Your task to perform on an android device: Go to Yahoo.com Image 0: 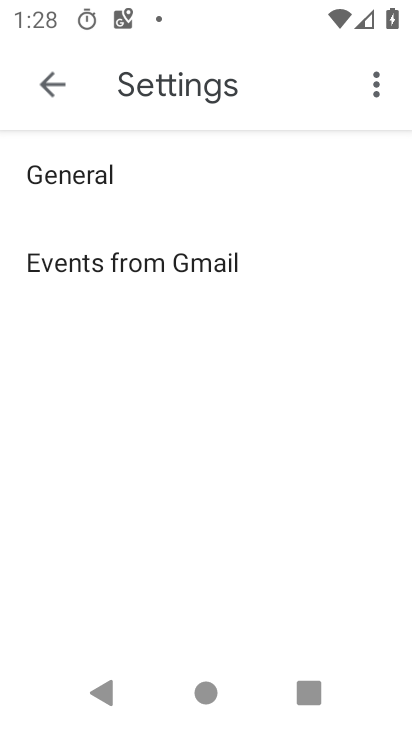
Step 0: click (379, 97)
Your task to perform on an android device: Go to Yahoo.com Image 1: 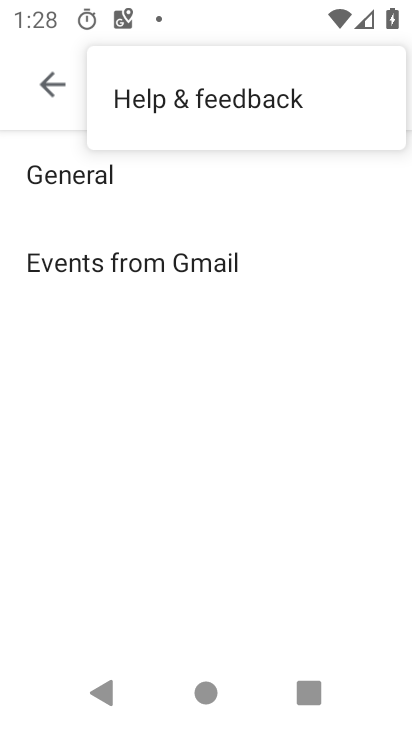
Step 1: click (23, 63)
Your task to perform on an android device: Go to Yahoo.com Image 2: 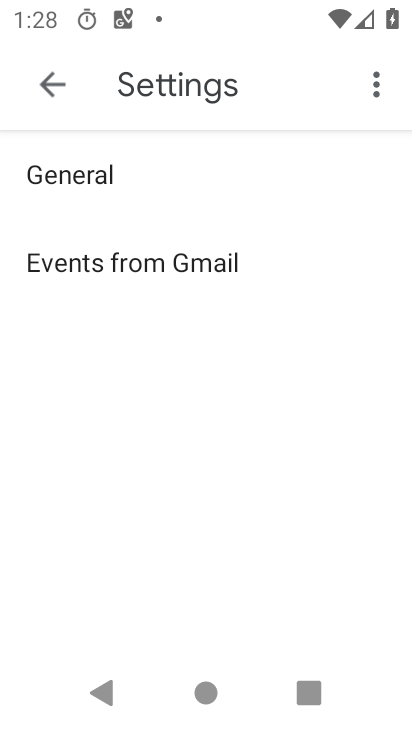
Step 2: click (39, 88)
Your task to perform on an android device: Go to Yahoo.com Image 3: 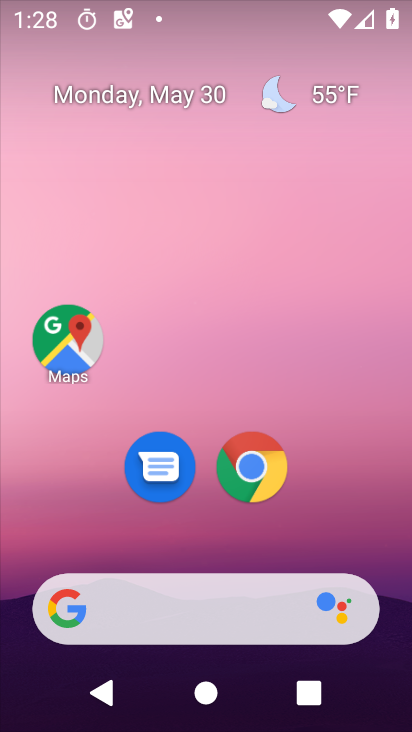
Step 3: click (242, 468)
Your task to perform on an android device: Go to Yahoo.com Image 4: 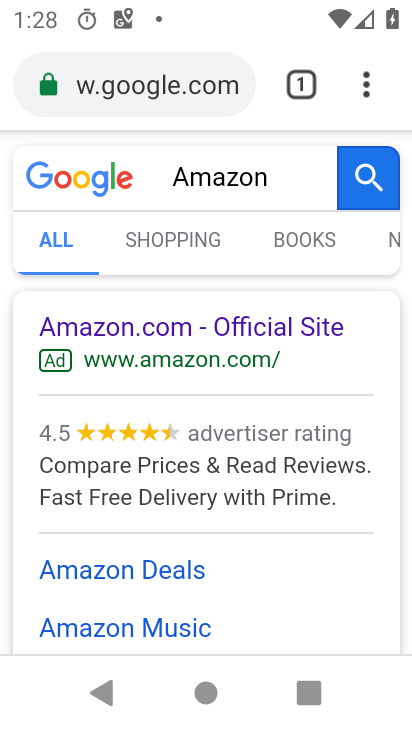
Step 4: click (234, 86)
Your task to perform on an android device: Go to Yahoo.com Image 5: 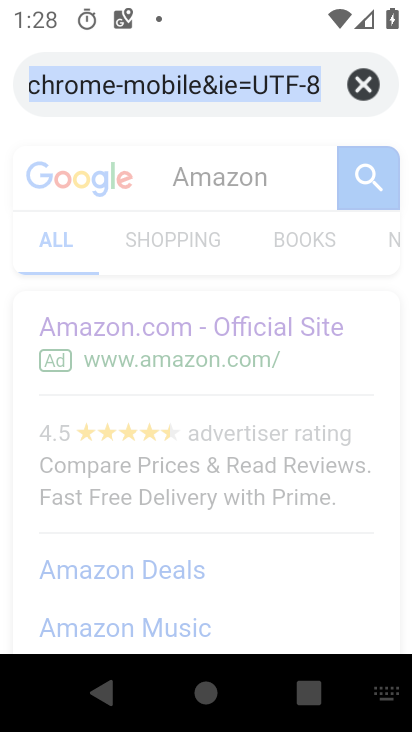
Step 5: click (367, 70)
Your task to perform on an android device: Go to Yahoo.com Image 6: 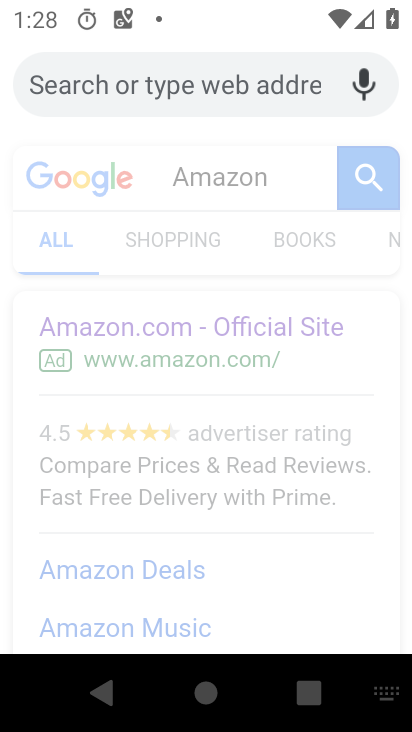
Step 6: type "Yahoo.com"
Your task to perform on an android device: Go to Yahoo.com Image 7: 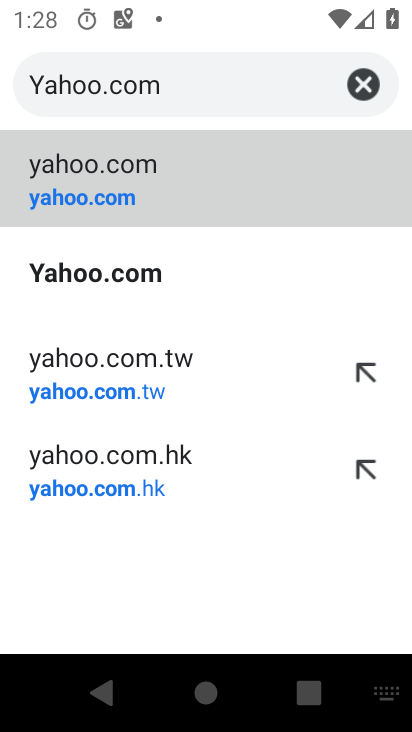
Step 7: click (75, 268)
Your task to perform on an android device: Go to Yahoo.com Image 8: 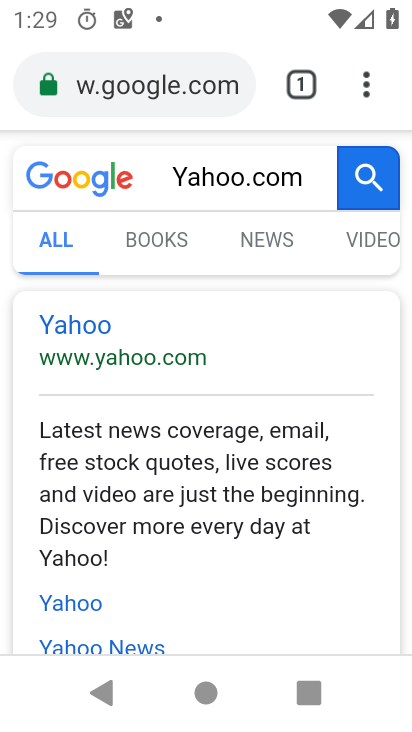
Step 8: task complete